Your task to perform on an android device: Search for logitech g933 on amazon.com, select the first entry, and add it to the cart. Image 0: 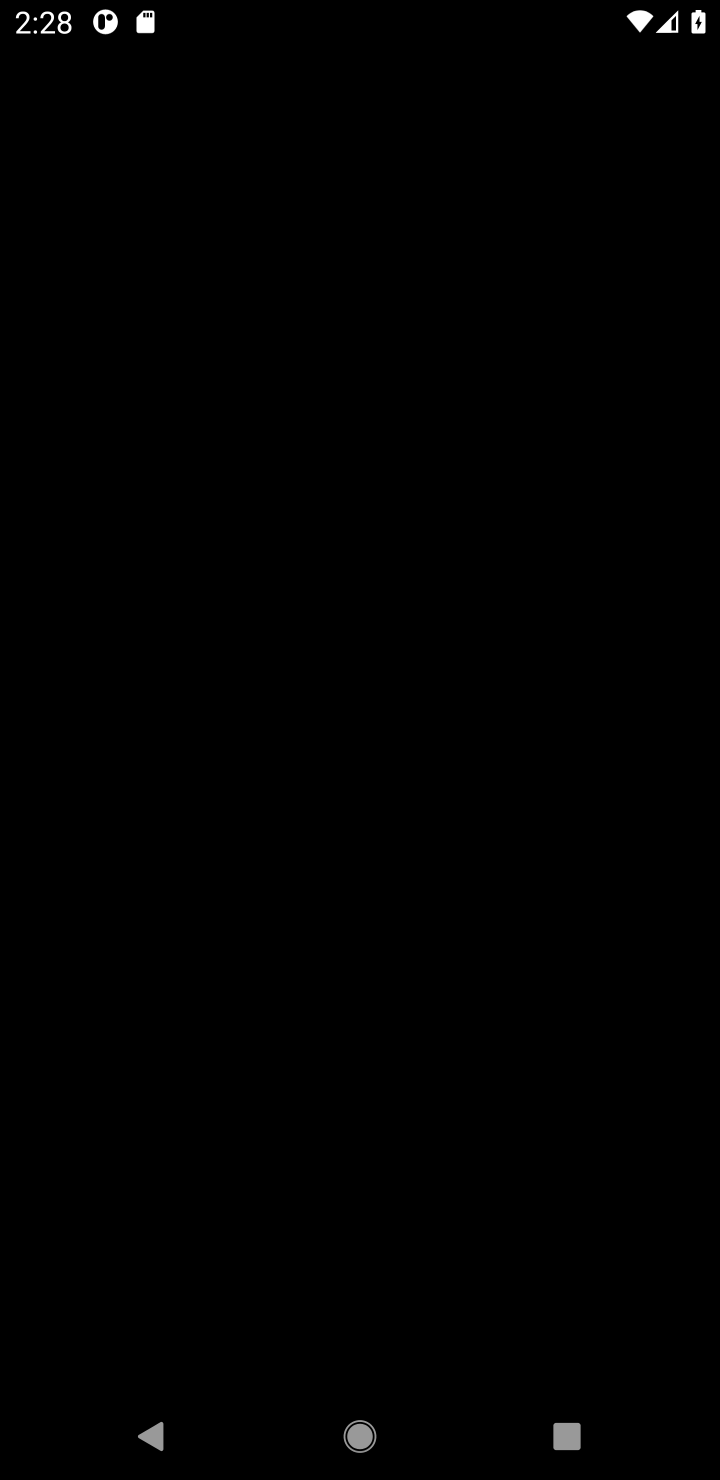
Step 0: press home button
Your task to perform on an android device: Search for logitech g933 on amazon.com, select the first entry, and add it to the cart. Image 1: 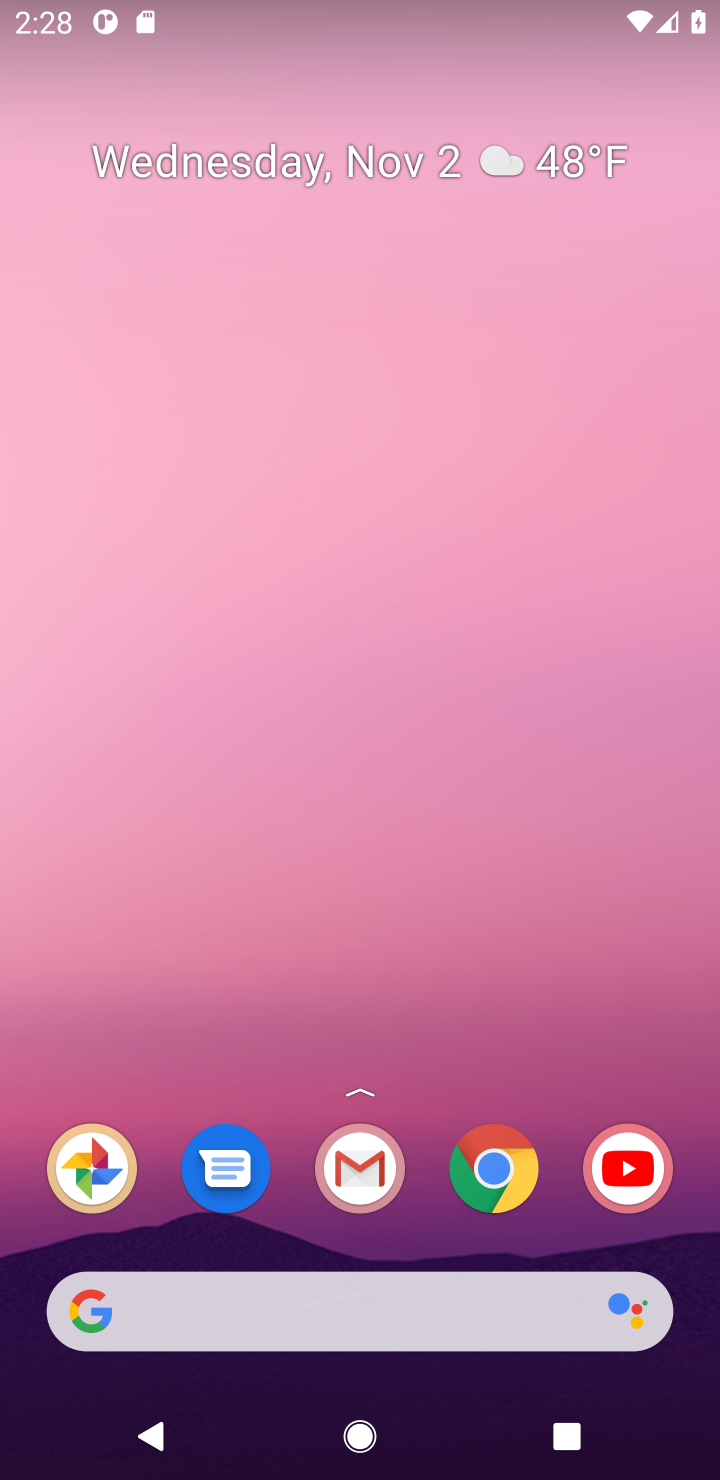
Step 1: click (302, 1314)
Your task to perform on an android device: Search for logitech g933 on amazon.com, select the first entry, and add it to the cart. Image 2: 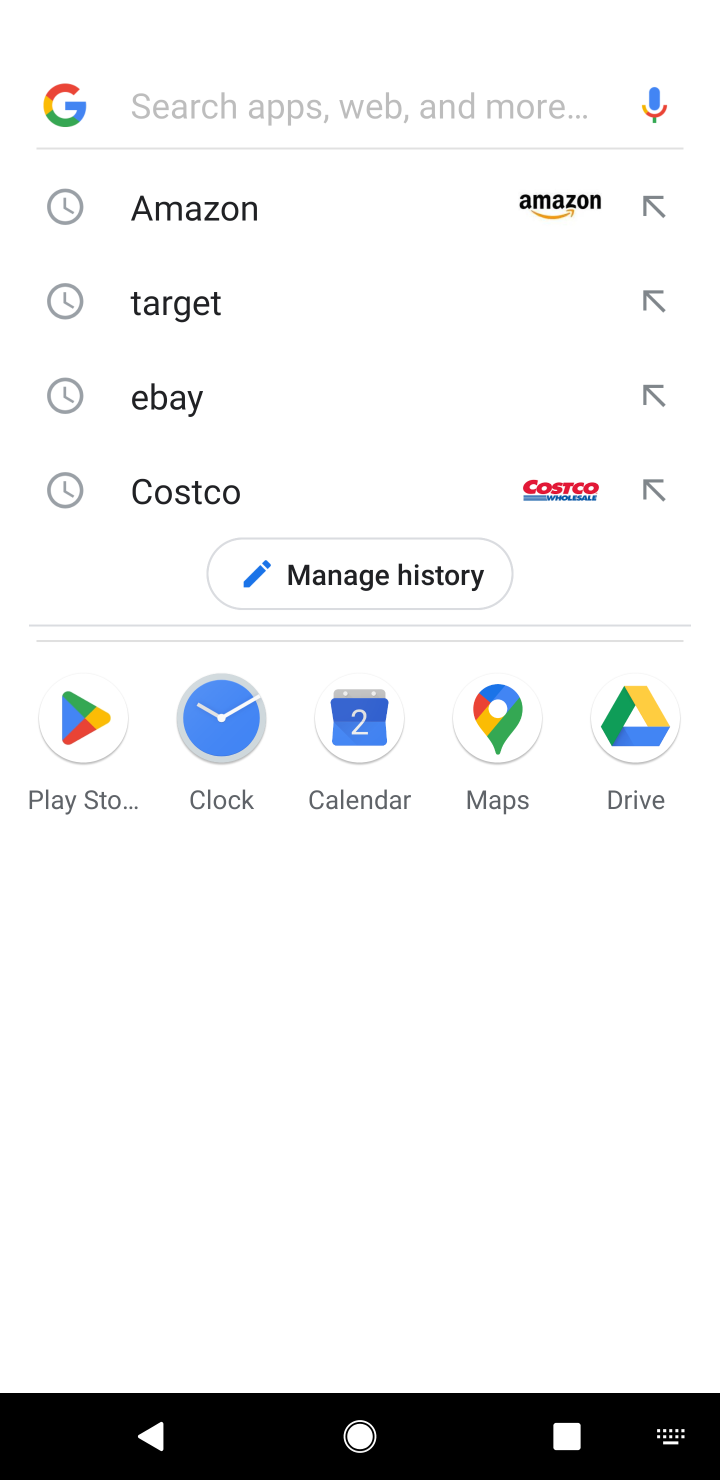
Step 2: click (481, 203)
Your task to perform on an android device: Search for logitech g933 on amazon.com, select the first entry, and add it to the cart. Image 3: 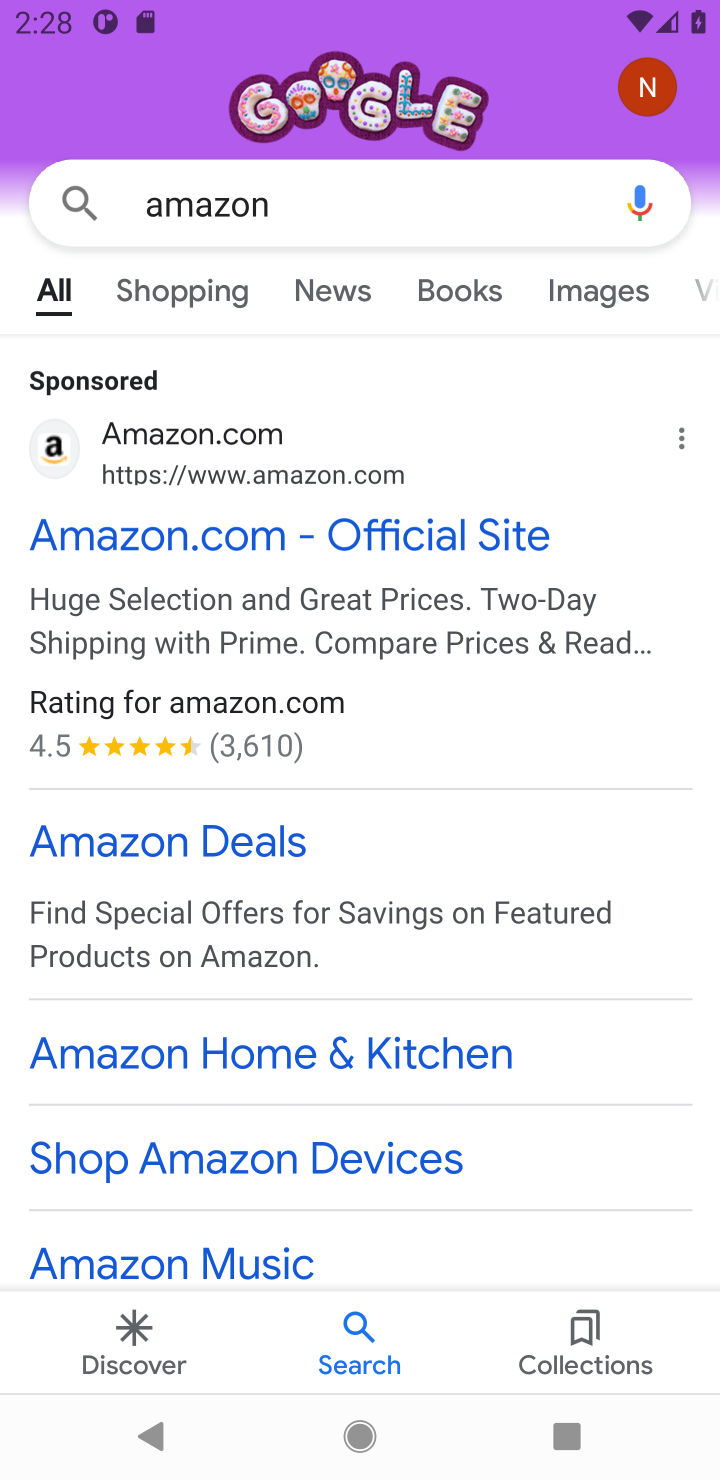
Step 3: click (168, 433)
Your task to perform on an android device: Search for logitech g933 on amazon.com, select the first entry, and add it to the cart. Image 4: 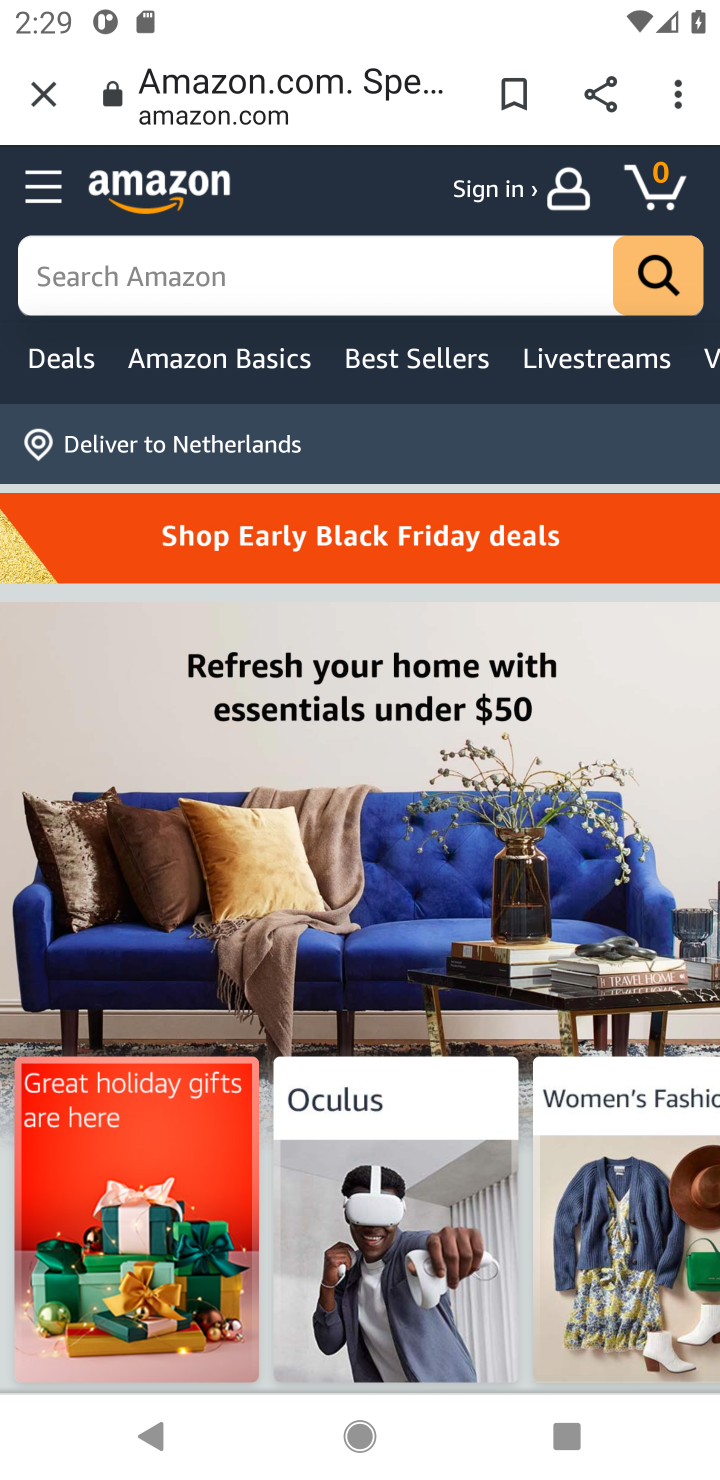
Step 4: click (252, 293)
Your task to perform on an android device: Search for logitech g933 on amazon.com, select the first entry, and add it to the cart. Image 5: 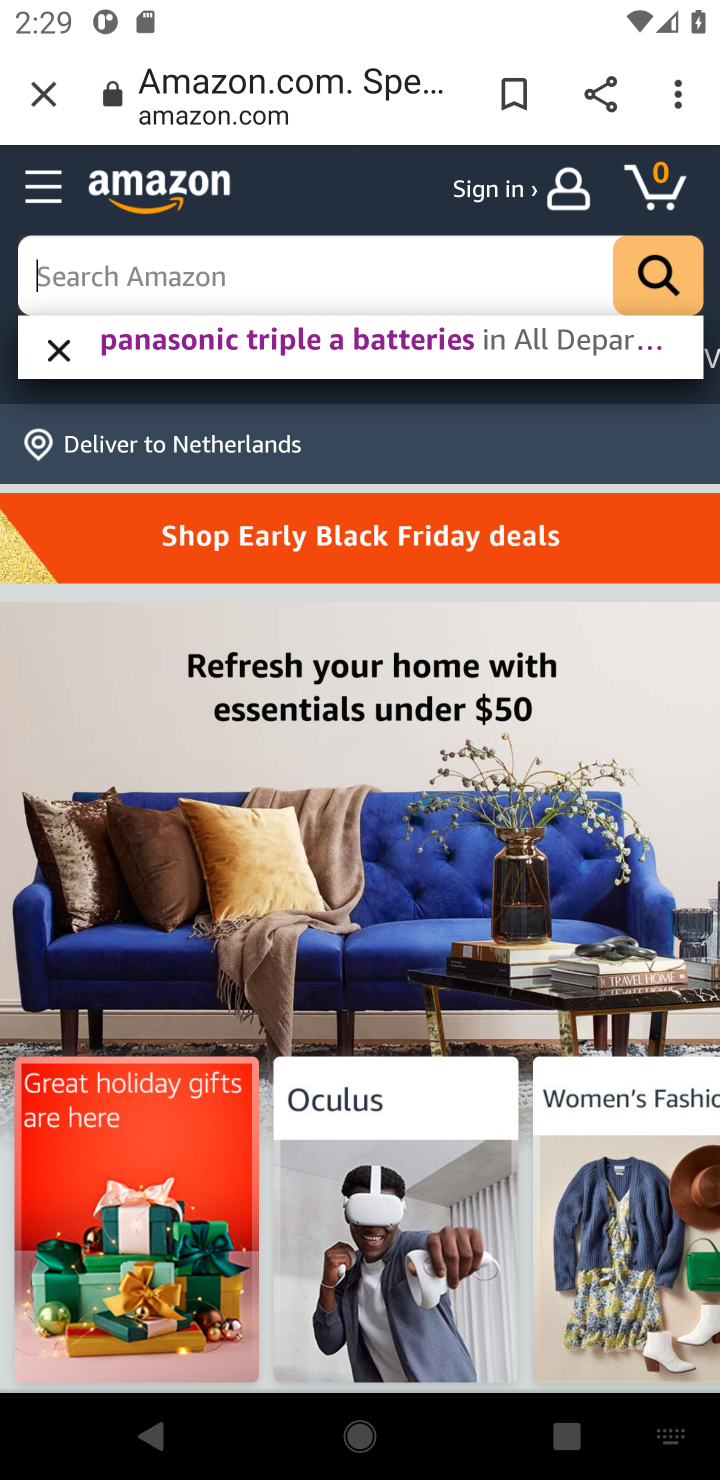
Step 5: type "logitech g933"
Your task to perform on an android device: Search for logitech g933 on amazon.com, select the first entry, and add it to the cart. Image 6: 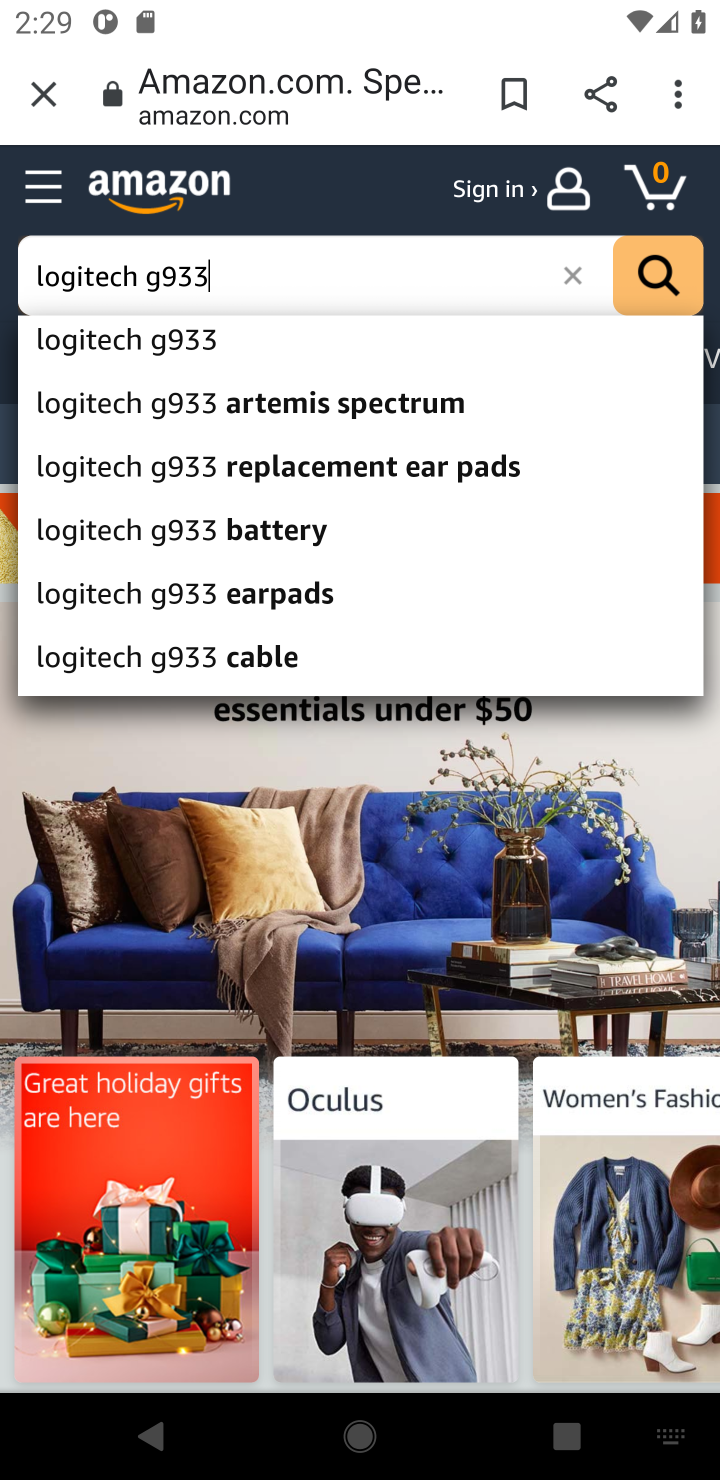
Step 6: click (179, 337)
Your task to perform on an android device: Search for logitech g933 on amazon.com, select the first entry, and add it to the cart. Image 7: 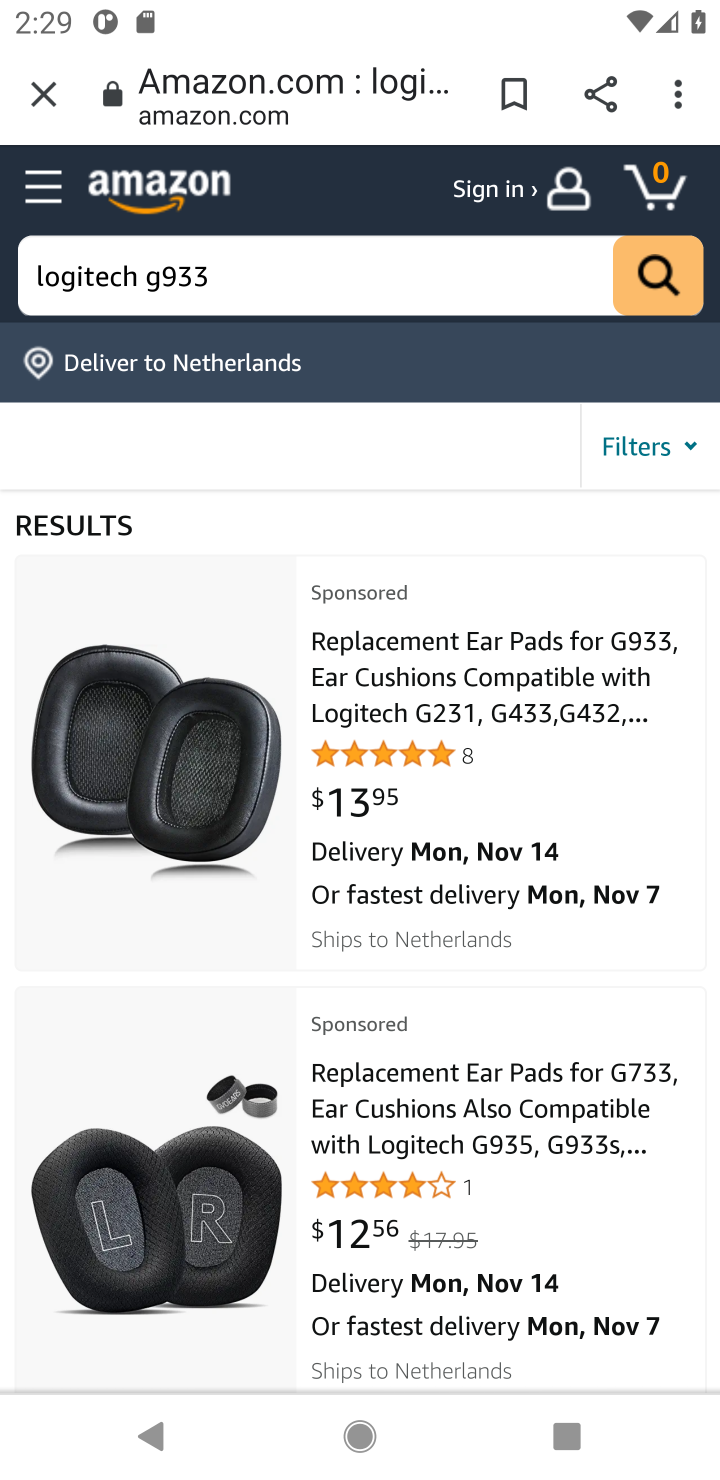
Step 7: click (359, 702)
Your task to perform on an android device: Search for logitech g933 on amazon.com, select the first entry, and add it to the cart. Image 8: 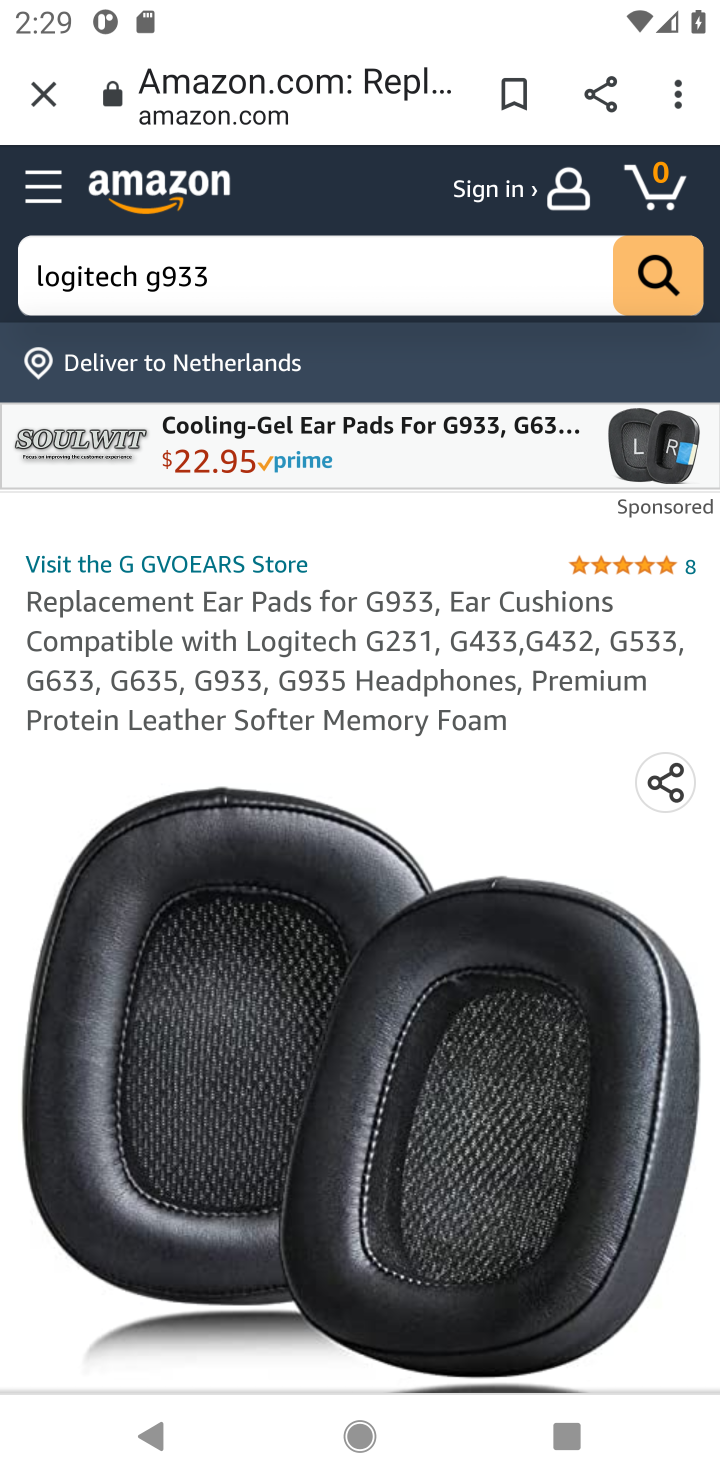
Step 8: drag from (326, 989) to (389, 628)
Your task to perform on an android device: Search for logitech g933 on amazon.com, select the first entry, and add it to the cart. Image 9: 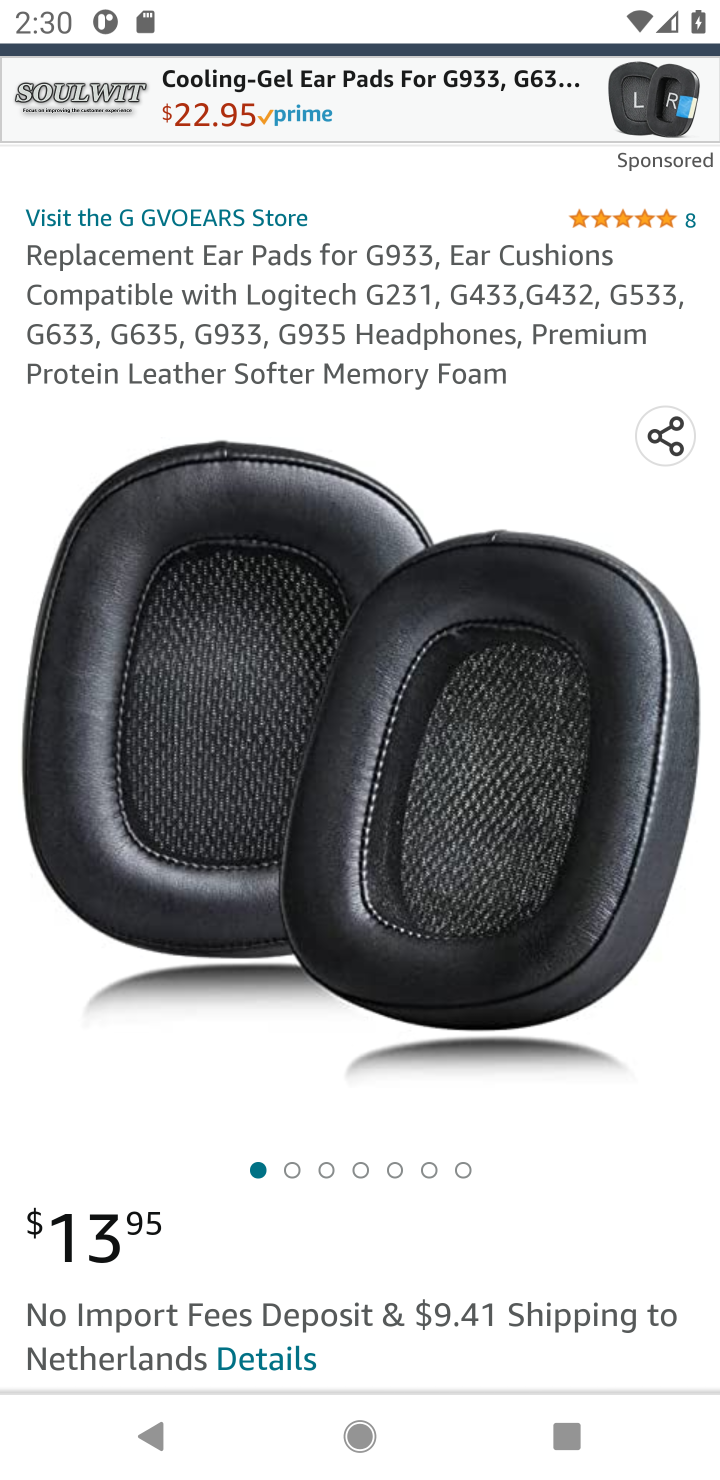
Step 9: drag from (343, 1077) to (433, 586)
Your task to perform on an android device: Search for logitech g933 on amazon.com, select the first entry, and add it to the cart. Image 10: 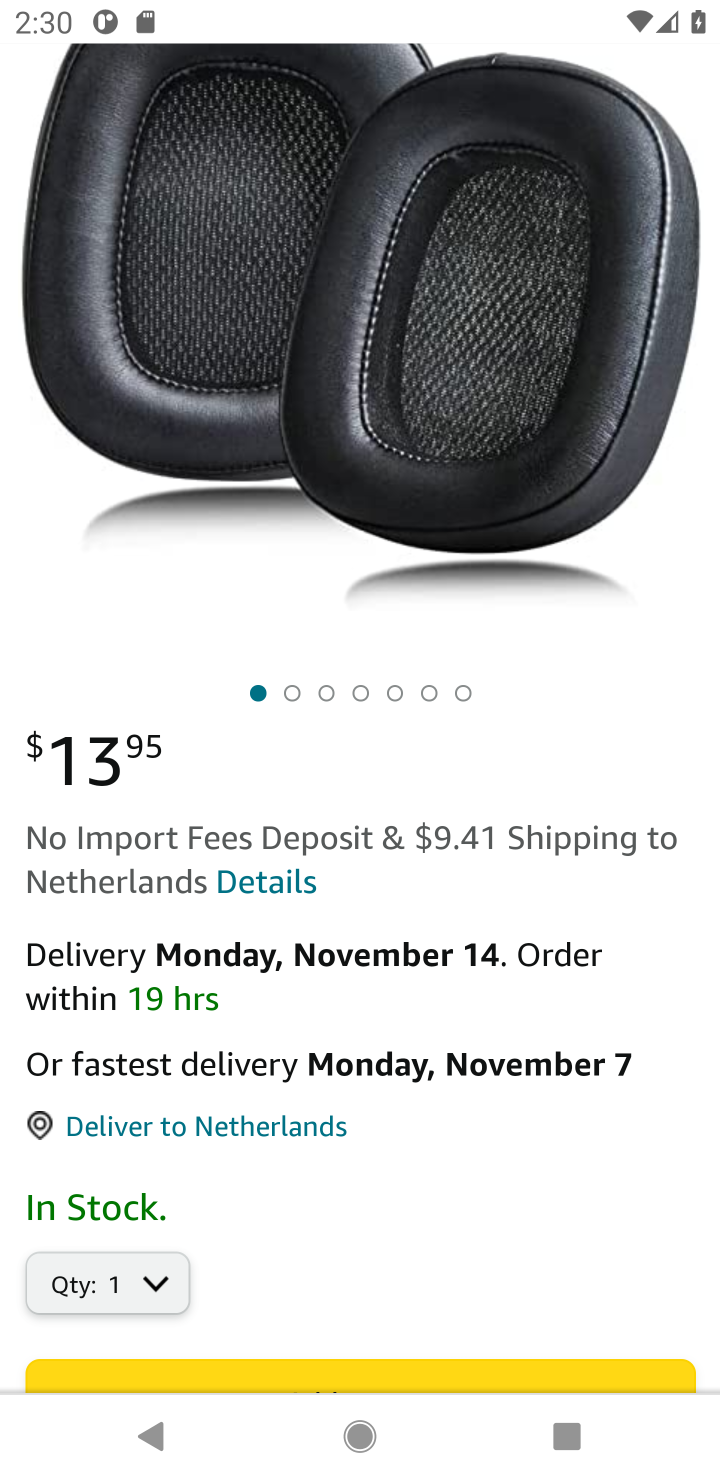
Step 10: drag from (395, 1091) to (462, 737)
Your task to perform on an android device: Search for logitech g933 on amazon.com, select the first entry, and add it to the cart. Image 11: 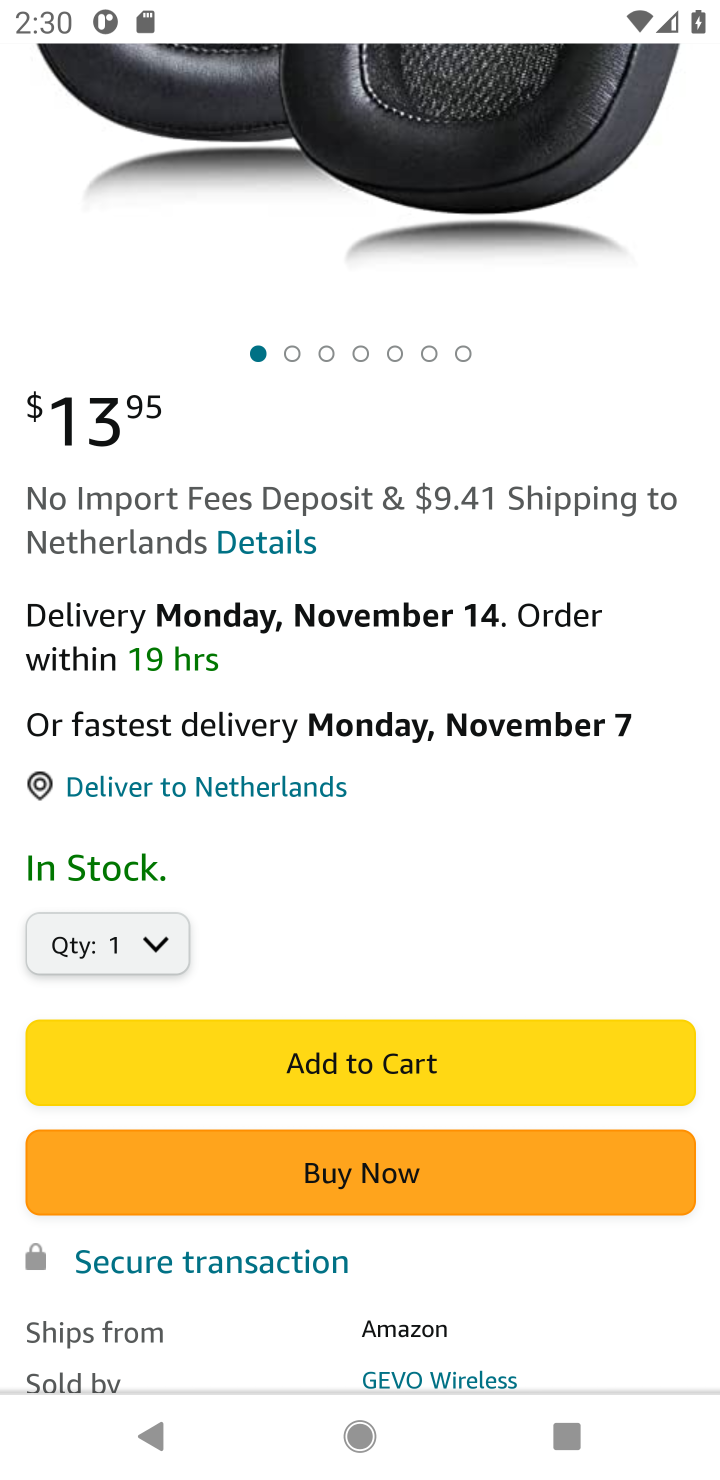
Step 11: click (357, 1062)
Your task to perform on an android device: Search for logitech g933 on amazon.com, select the first entry, and add it to the cart. Image 12: 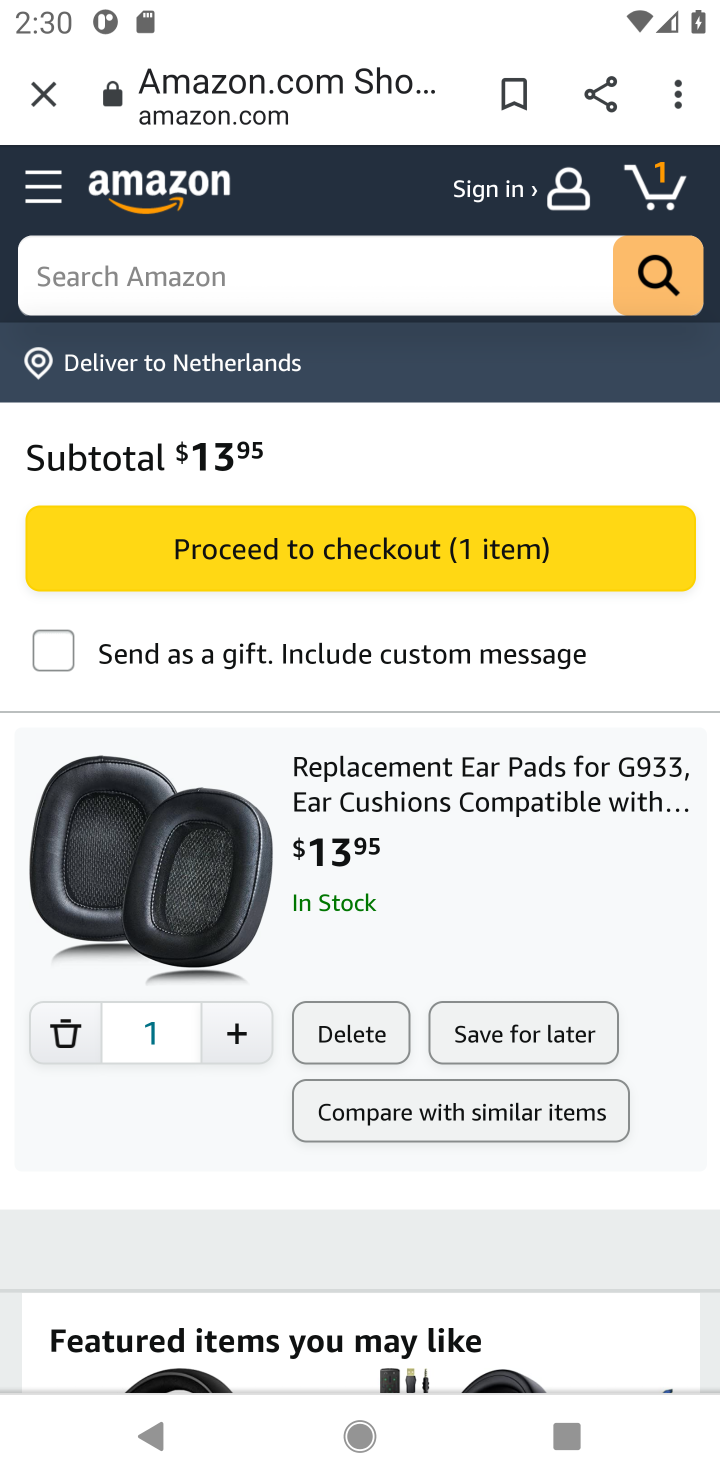
Step 12: click (377, 566)
Your task to perform on an android device: Search for logitech g933 on amazon.com, select the first entry, and add it to the cart. Image 13: 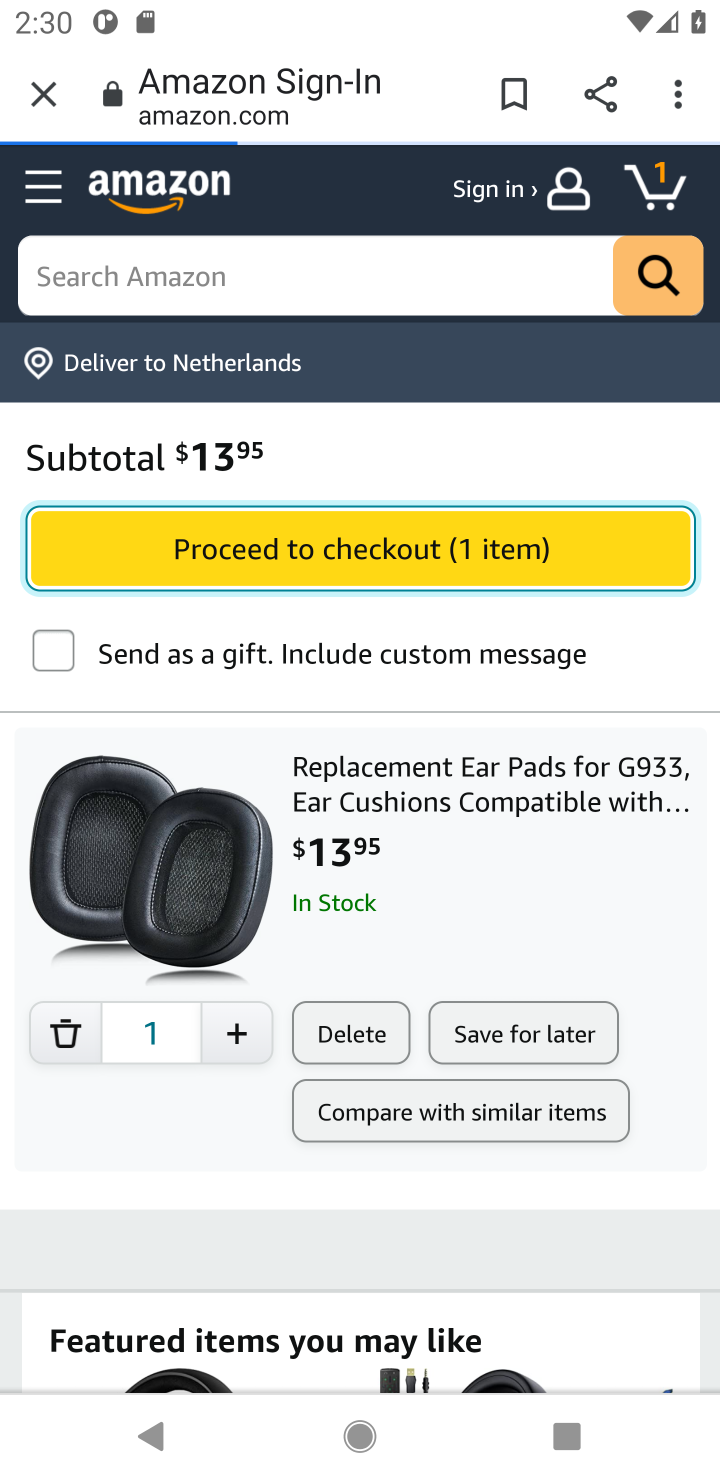
Step 13: task complete